Your task to perform on an android device: Open ESPN.com Image 0: 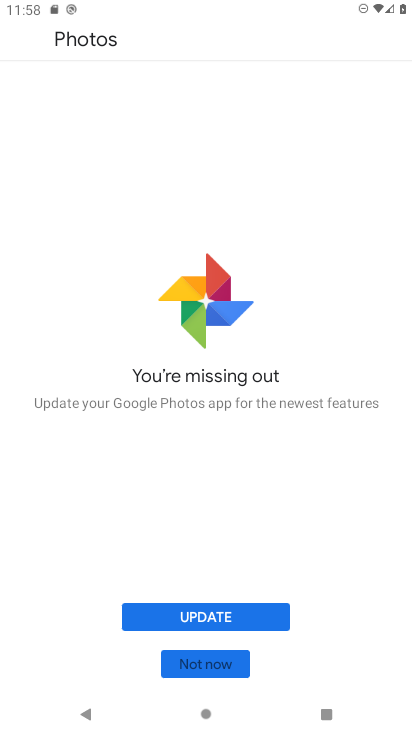
Step 0: press home button
Your task to perform on an android device: Open ESPN.com Image 1: 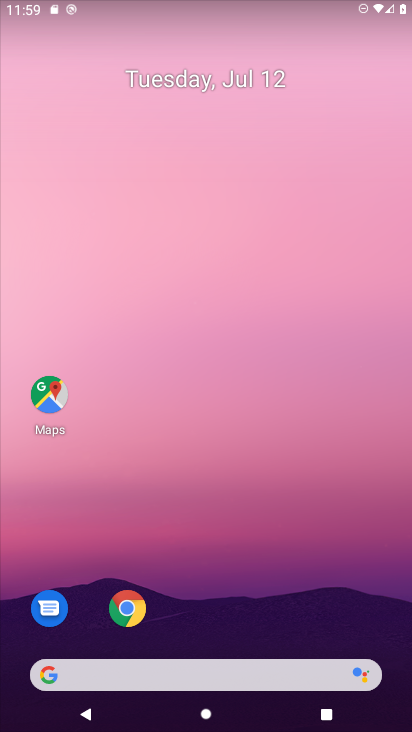
Step 1: click (125, 609)
Your task to perform on an android device: Open ESPN.com Image 2: 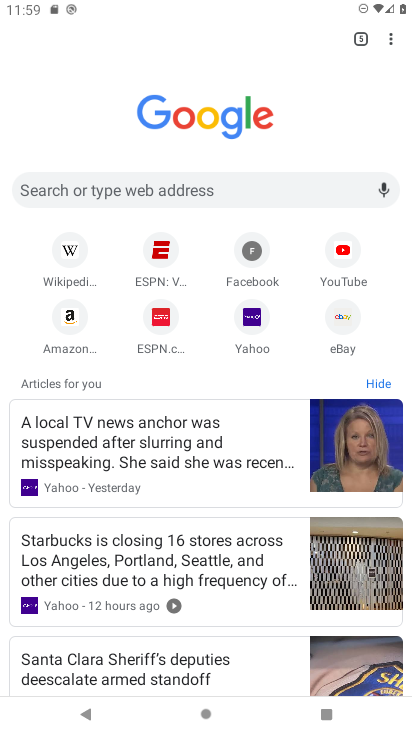
Step 2: click (161, 252)
Your task to perform on an android device: Open ESPN.com Image 3: 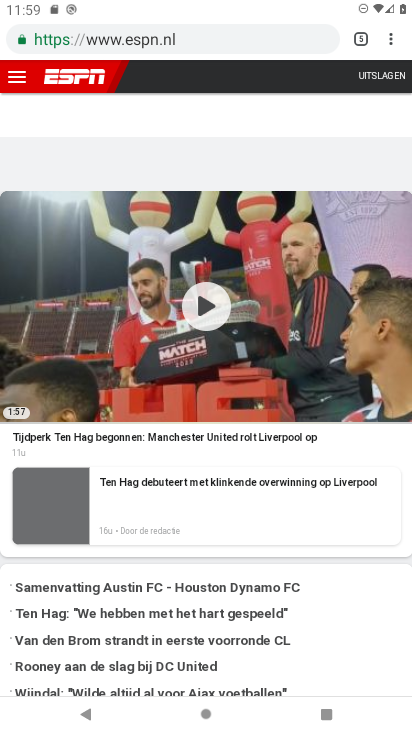
Step 3: task complete